Your task to perform on an android device: Open Reddit.com Image 0: 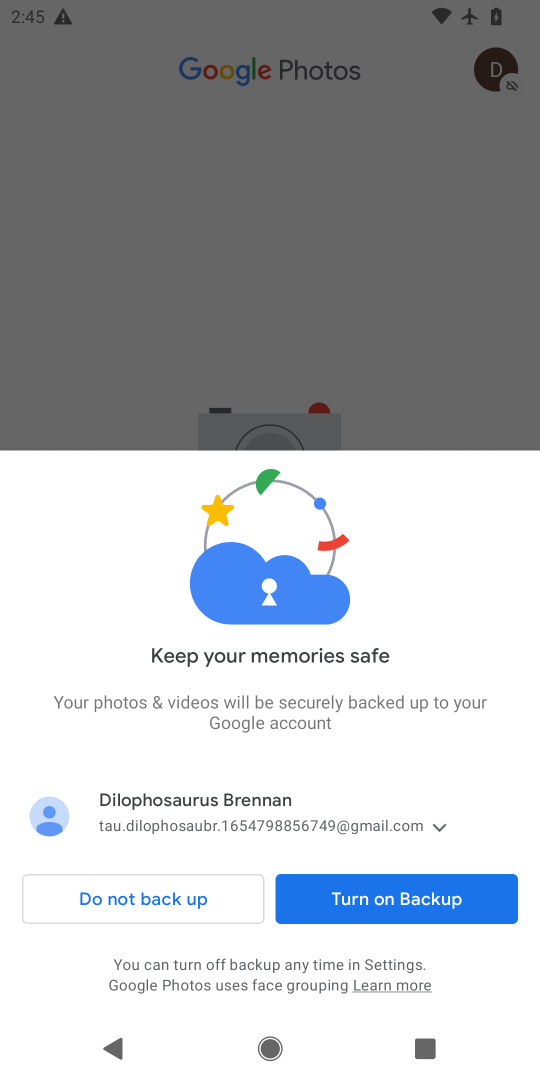
Step 0: press home button
Your task to perform on an android device: Open Reddit.com Image 1: 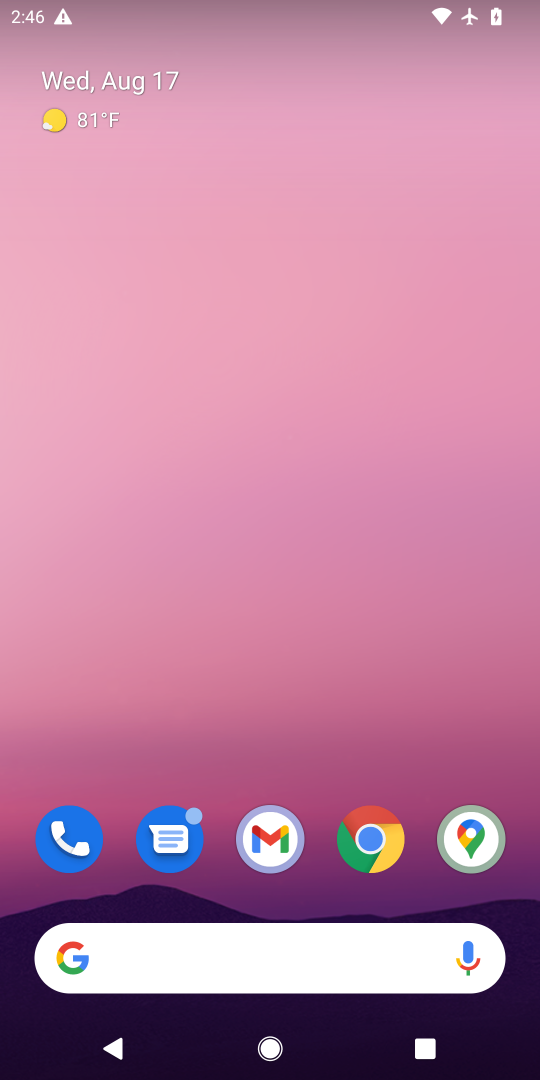
Step 1: click (367, 843)
Your task to perform on an android device: Open Reddit.com Image 2: 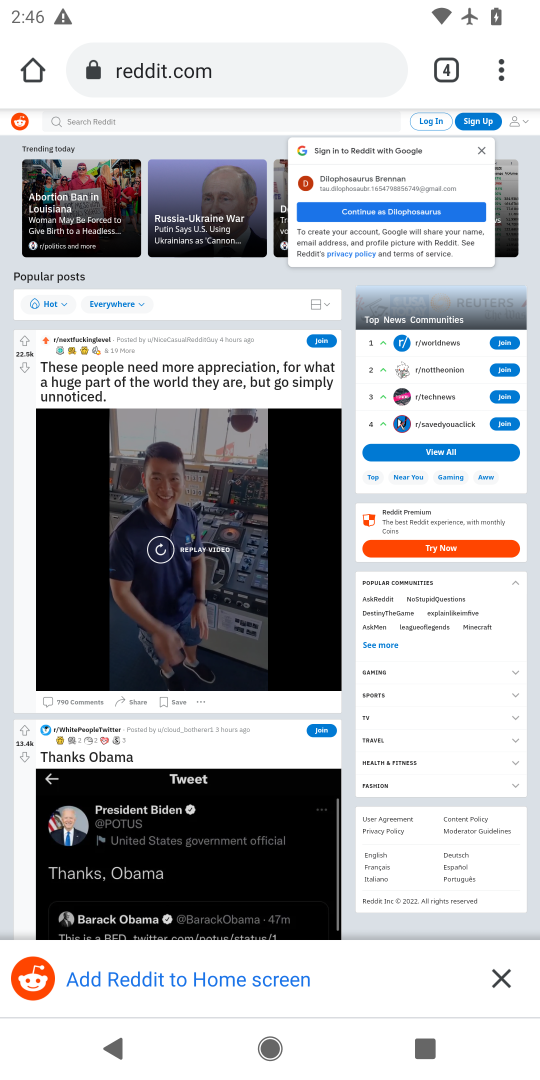
Step 2: task complete